Your task to perform on an android device: Search for Mexican restaurants on Maps Image 0: 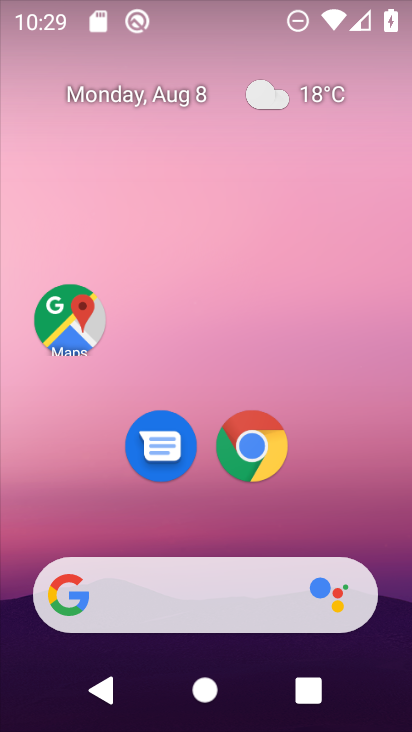
Step 0: click (70, 318)
Your task to perform on an android device: Search for Mexican restaurants on Maps Image 1: 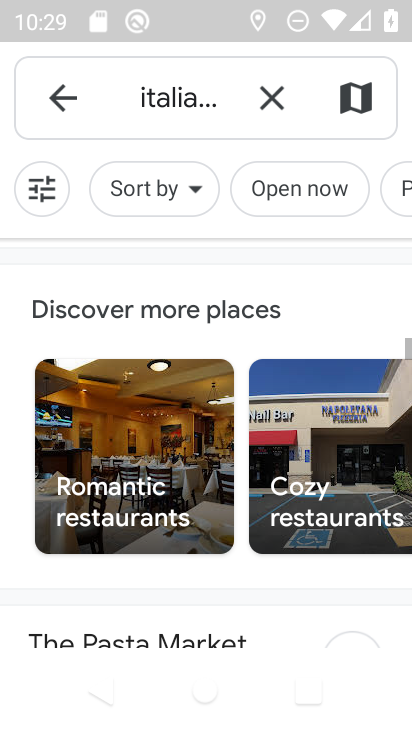
Step 1: click (270, 97)
Your task to perform on an android device: Search for Mexican restaurants on Maps Image 2: 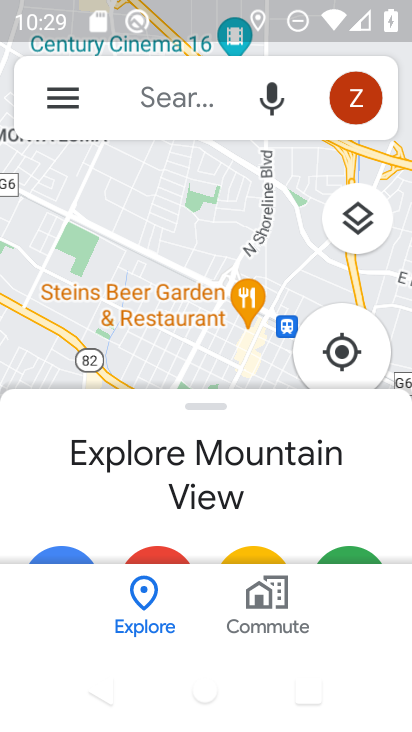
Step 2: click (141, 94)
Your task to perform on an android device: Search for Mexican restaurants on Maps Image 3: 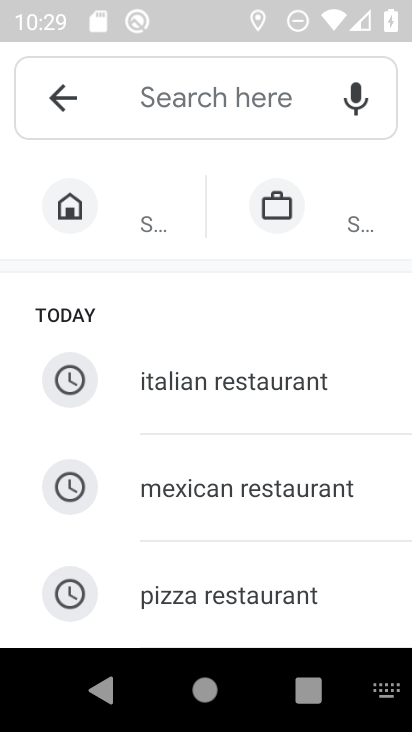
Step 3: type "mexican restaurants"
Your task to perform on an android device: Search for Mexican restaurants on Maps Image 4: 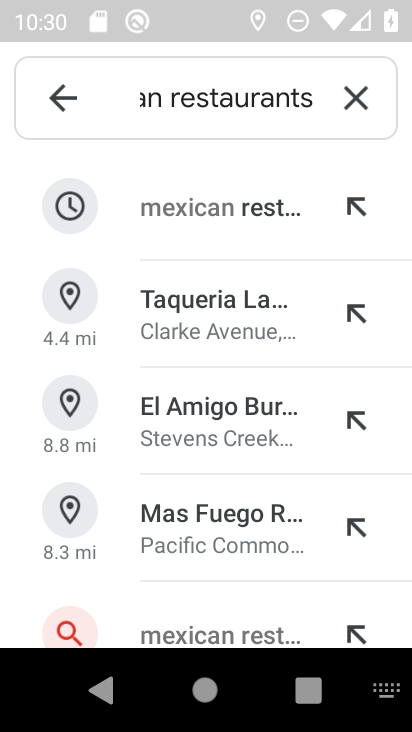
Step 4: click (170, 193)
Your task to perform on an android device: Search for Mexican restaurants on Maps Image 5: 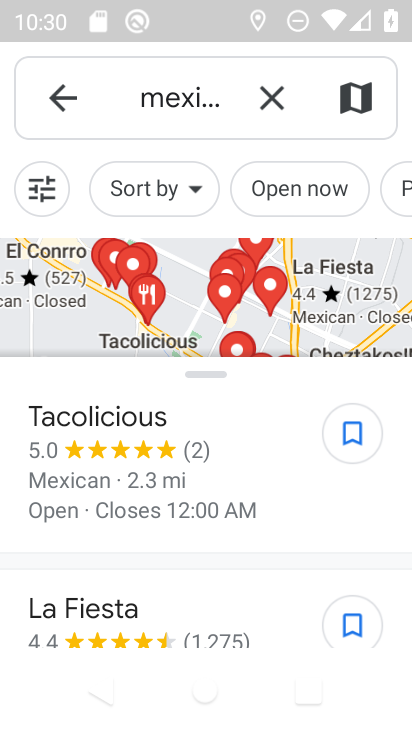
Step 5: task complete